Your task to perform on an android device: Go to Amazon Image 0: 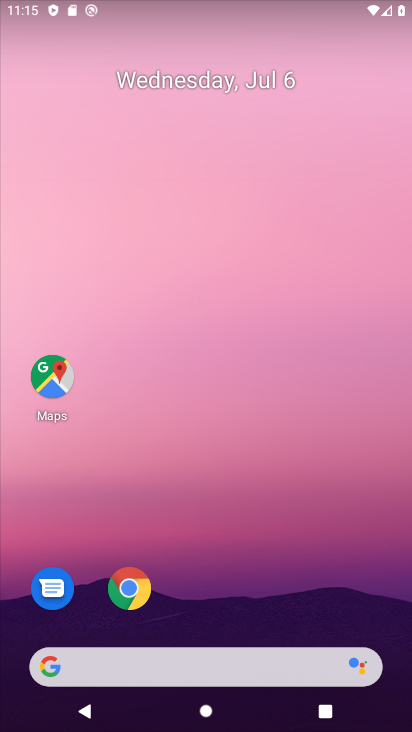
Step 0: drag from (198, 508) to (235, 100)
Your task to perform on an android device: Go to Amazon Image 1: 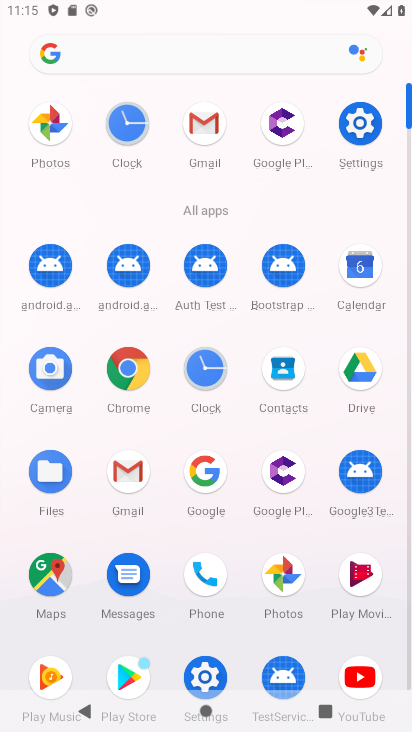
Step 1: click (123, 358)
Your task to perform on an android device: Go to Amazon Image 2: 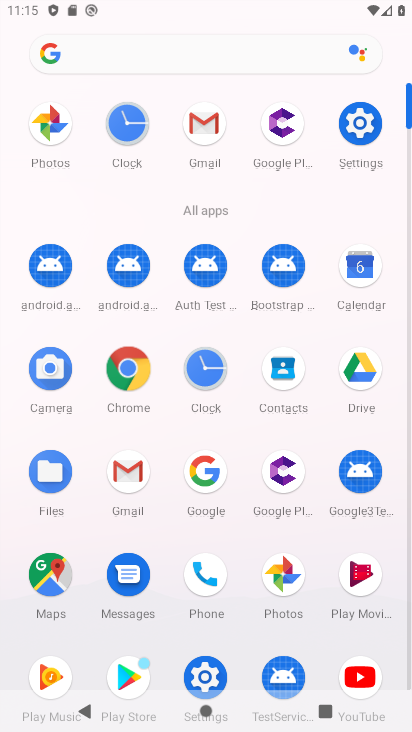
Step 2: click (123, 358)
Your task to perform on an android device: Go to Amazon Image 3: 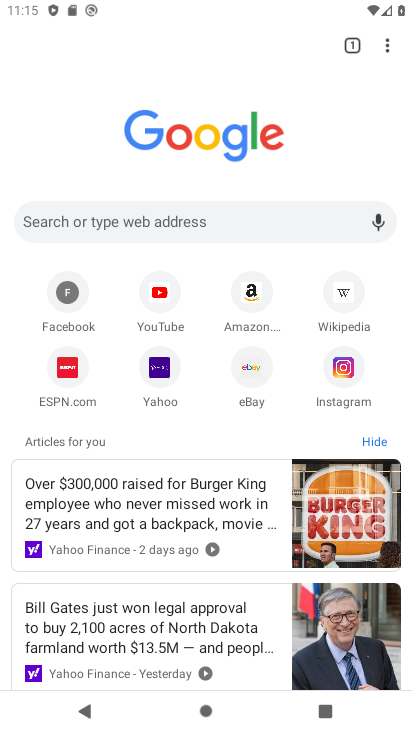
Step 3: click (244, 263)
Your task to perform on an android device: Go to Amazon Image 4: 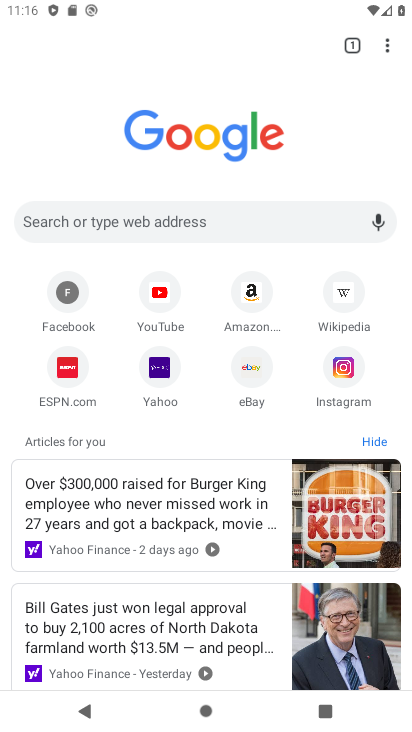
Step 4: click (250, 278)
Your task to perform on an android device: Go to Amazon Image 5: 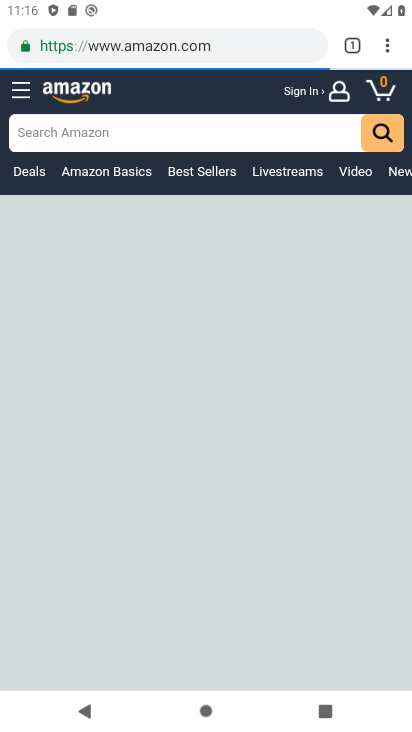
Step 5: task complete